Your task to perform on an android device: allow cookies in the chrome app Image 0: 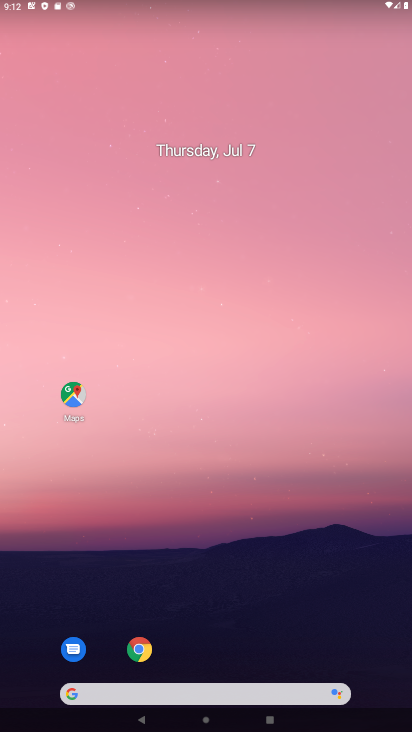
Step 0: click (144, 648)
Your task to perform on an android device: allow cookies in the chrome app Image 1: 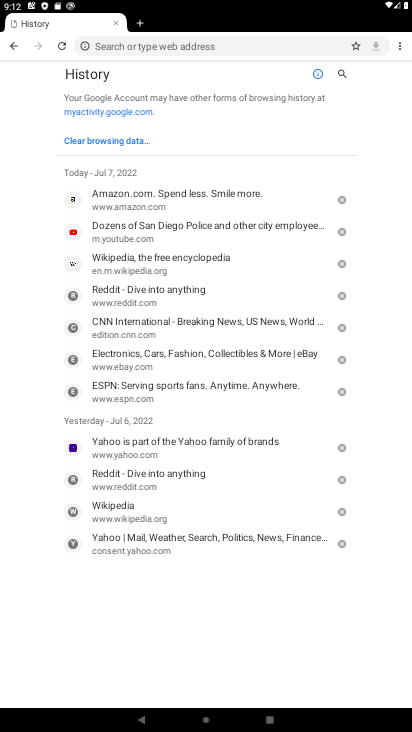
Step 1: click (401, 48)
Your task to perform on an android device: allow cookies in the chrome app Image 2: 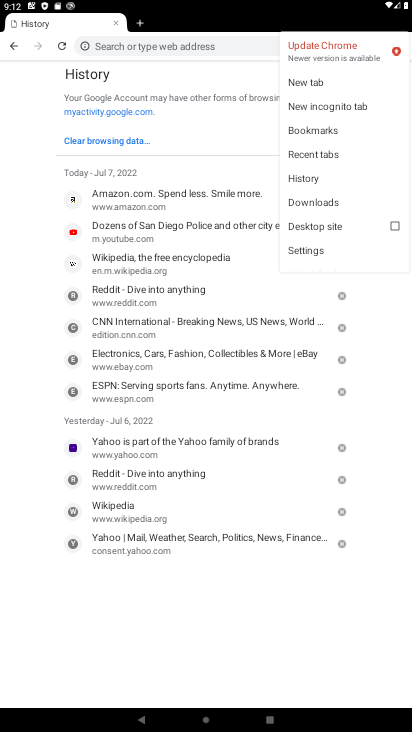
Step 2: click (301, 248)
Your task to perform on an android device: allow cookies in the chrome app Image 3: 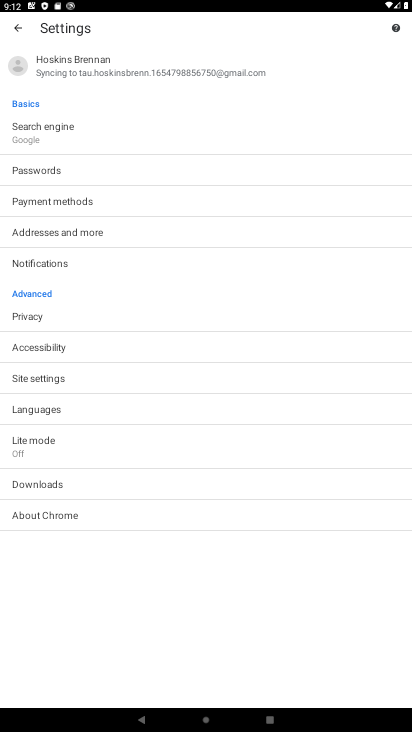
Step 3: click (37, 378)
Your task to perform on an android device: allow cookies in the chrome app Image 4: 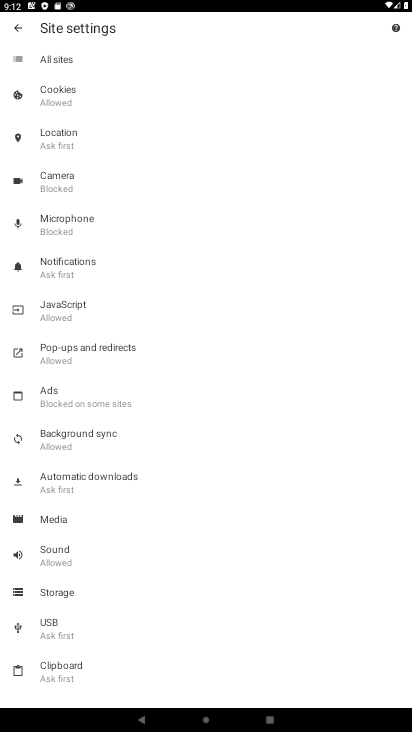
Step 4: click (52, 96)
Your task to perform on an android device: allow cookies in the chrome app Image 5: 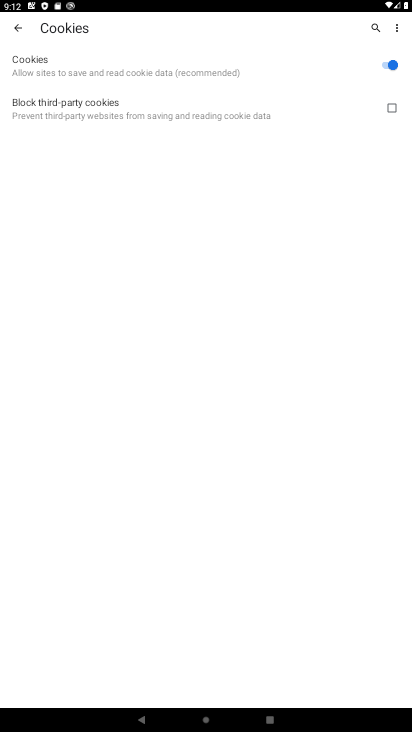
Step 5: task complete